Your task to perform on an android device: Install the Yelp app Image 0: 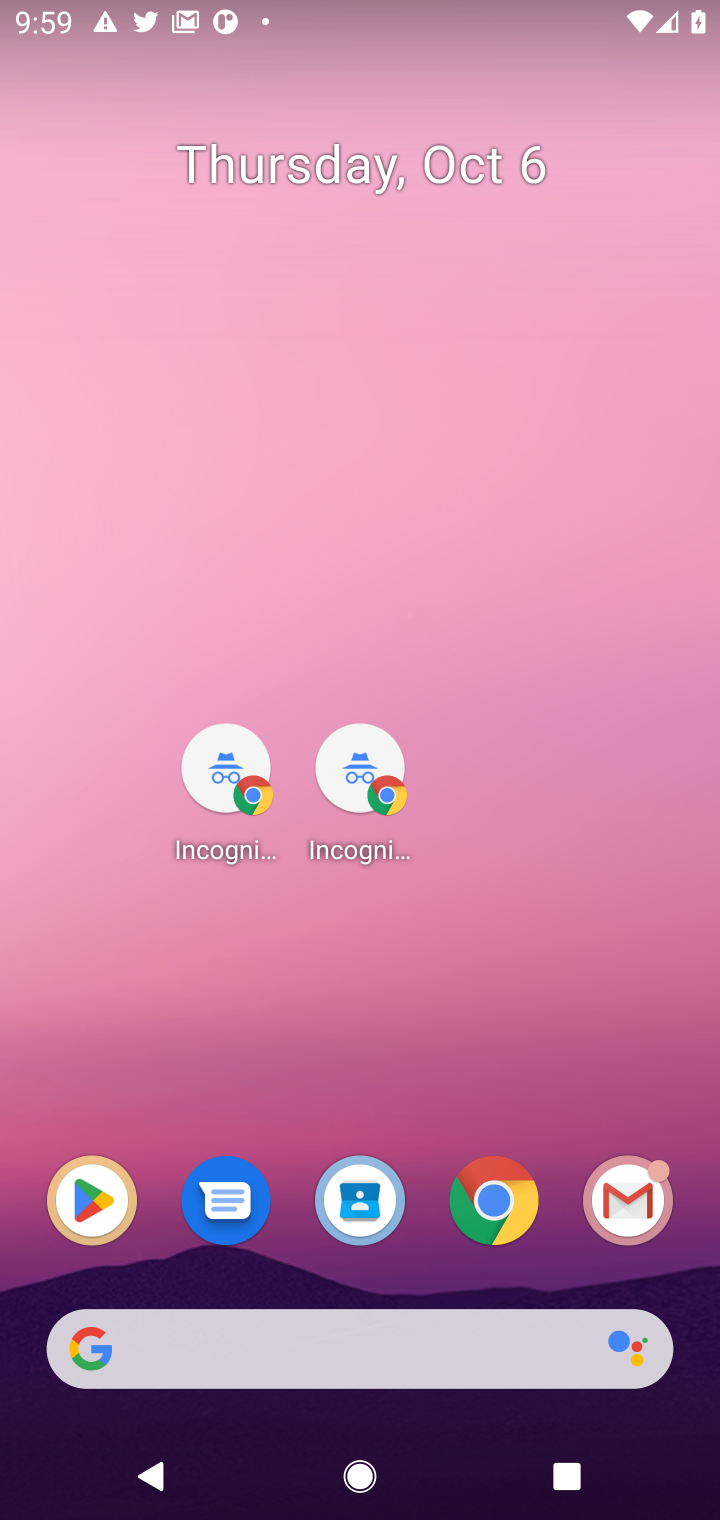
Step 0: press home button
Your task to perform on an android device: Install the Yelp app Image 1: 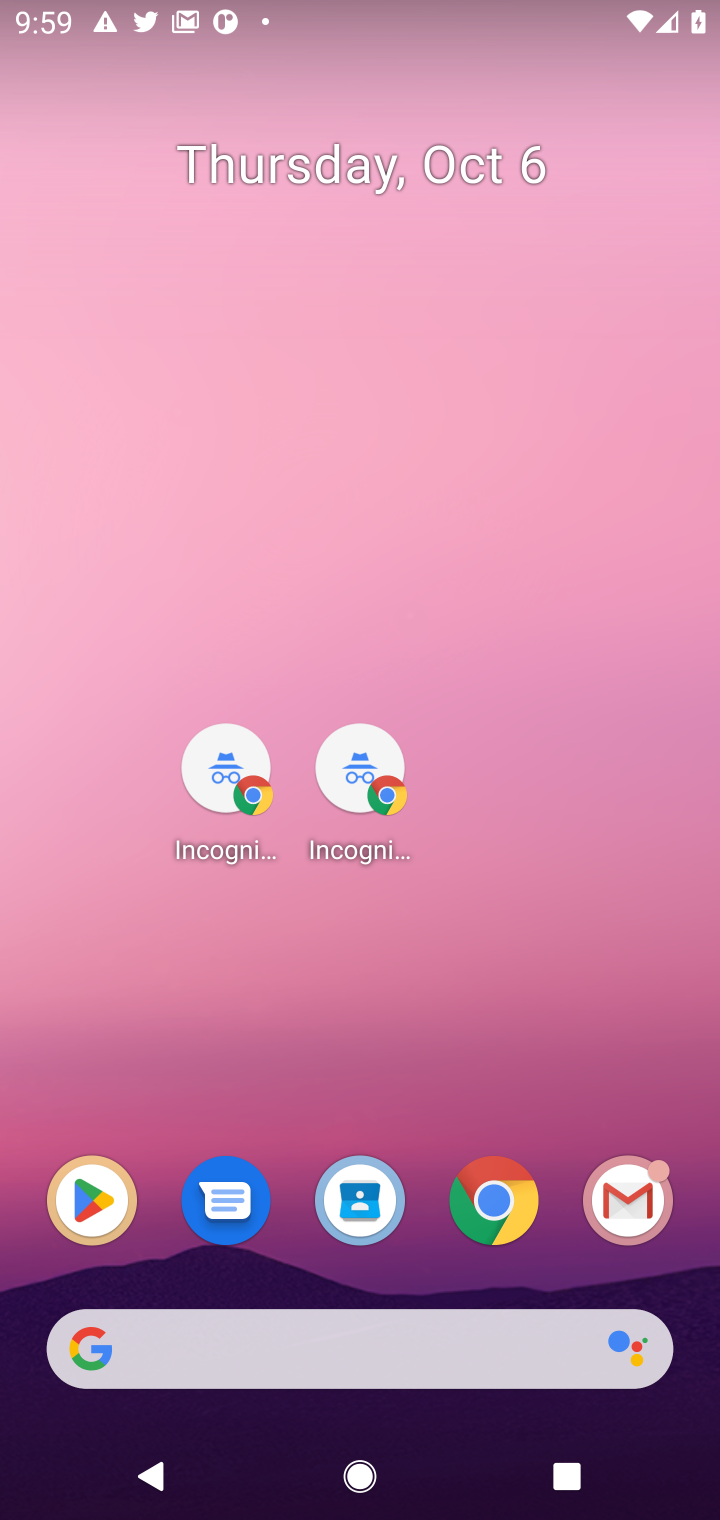
Step 1: press home button
Your task to perform on an android device: Install the Yelp app Image 2: 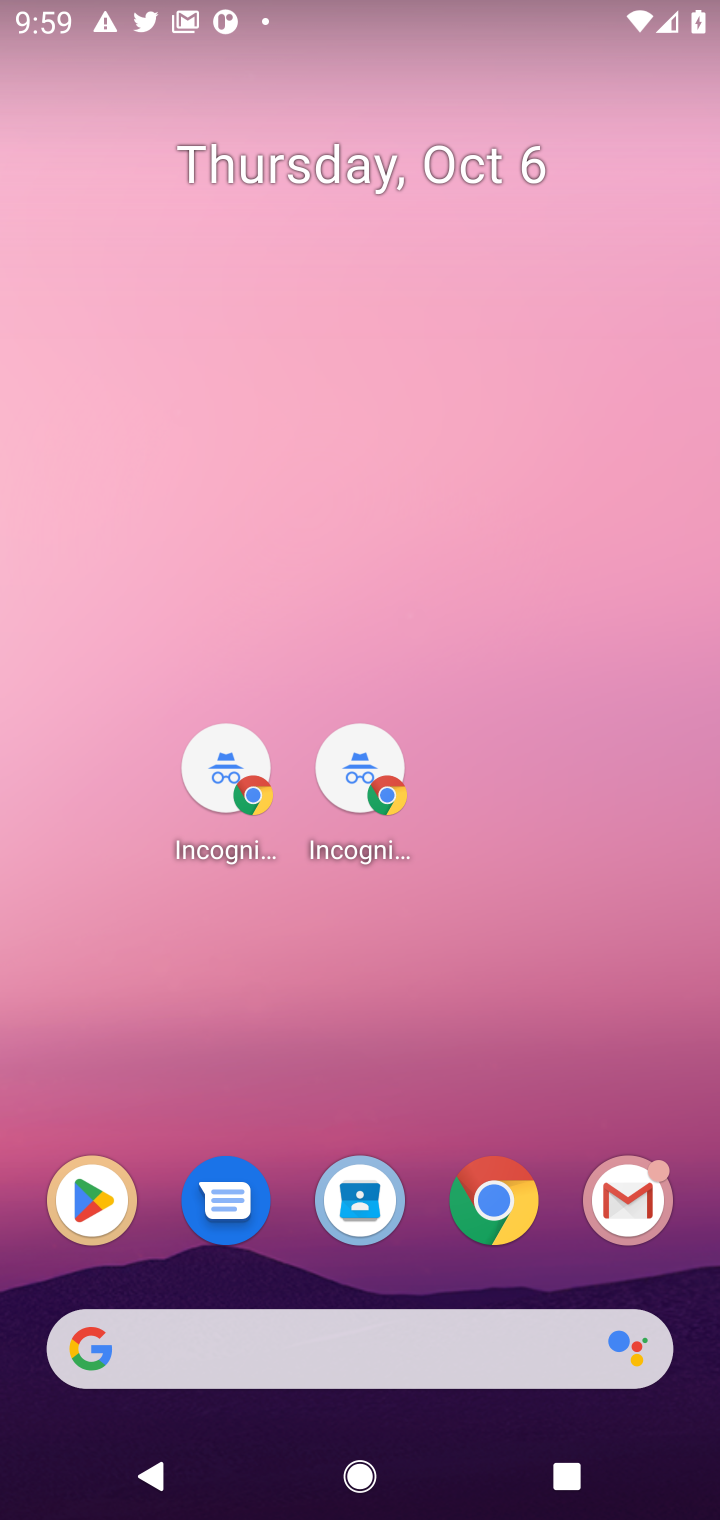
Step 2: press home button
Your task to perform on an android device: Install the Yelp app Image 3: 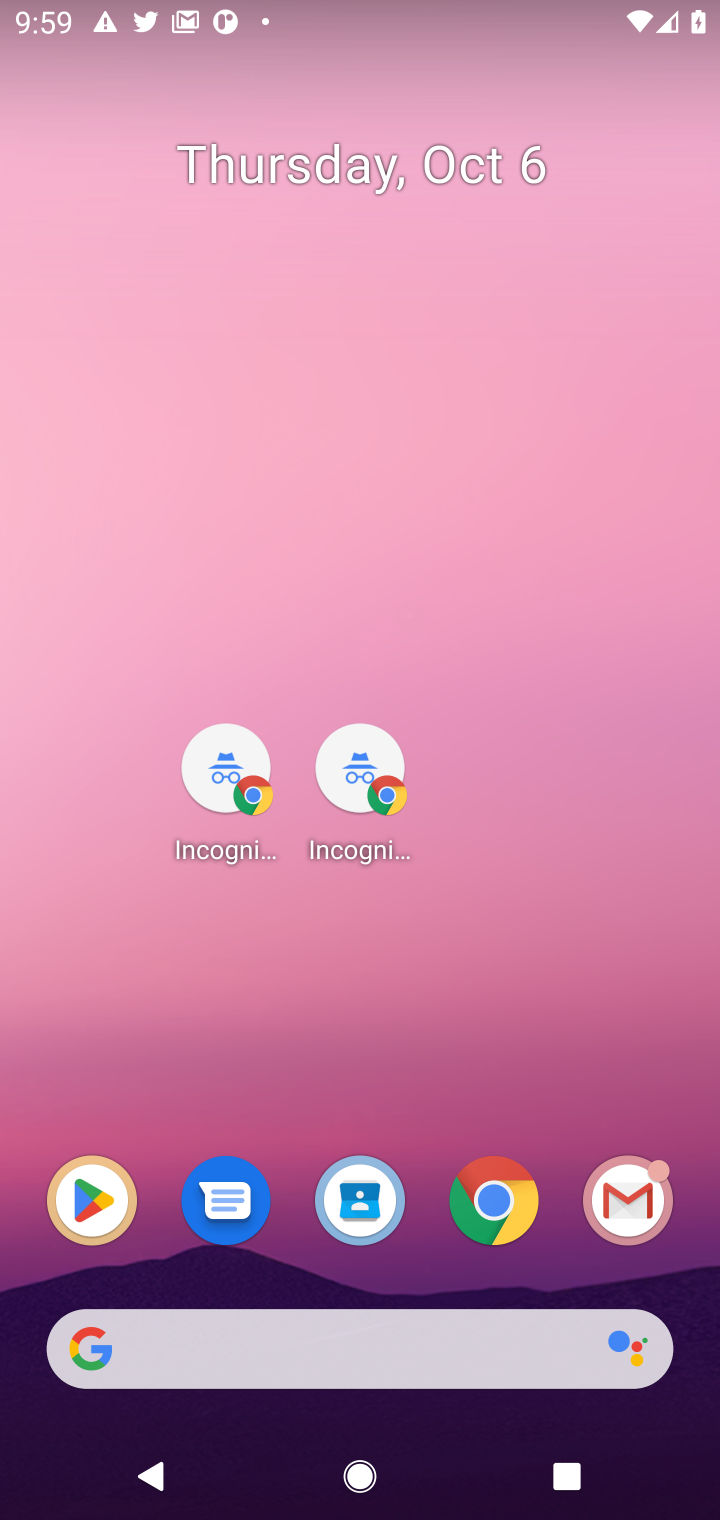
Step 3: click (506, 1182)
Your task to perform on an android device: Install the Yelp app Image 4: 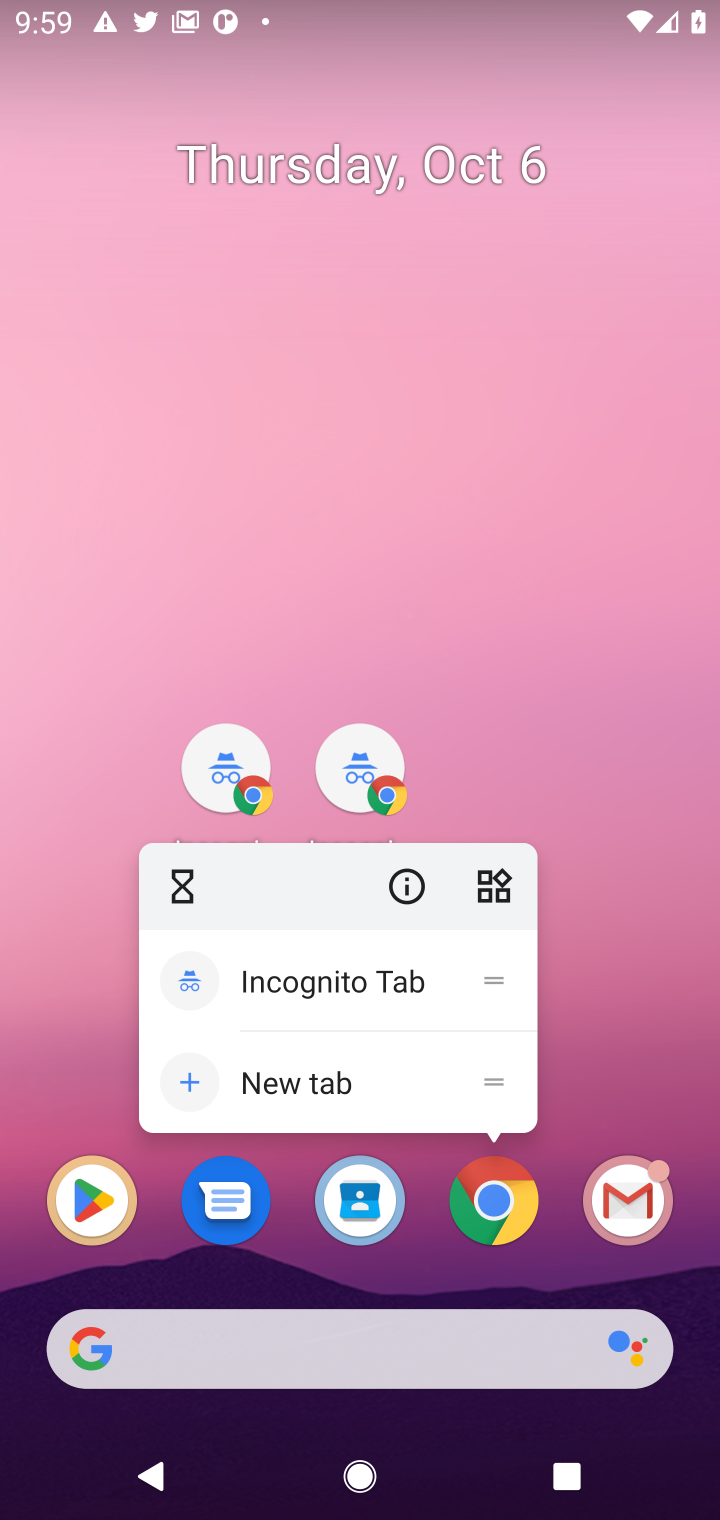
Step 4: press back button
Your task to perform on an android device: Install the Yelp app Image 5: 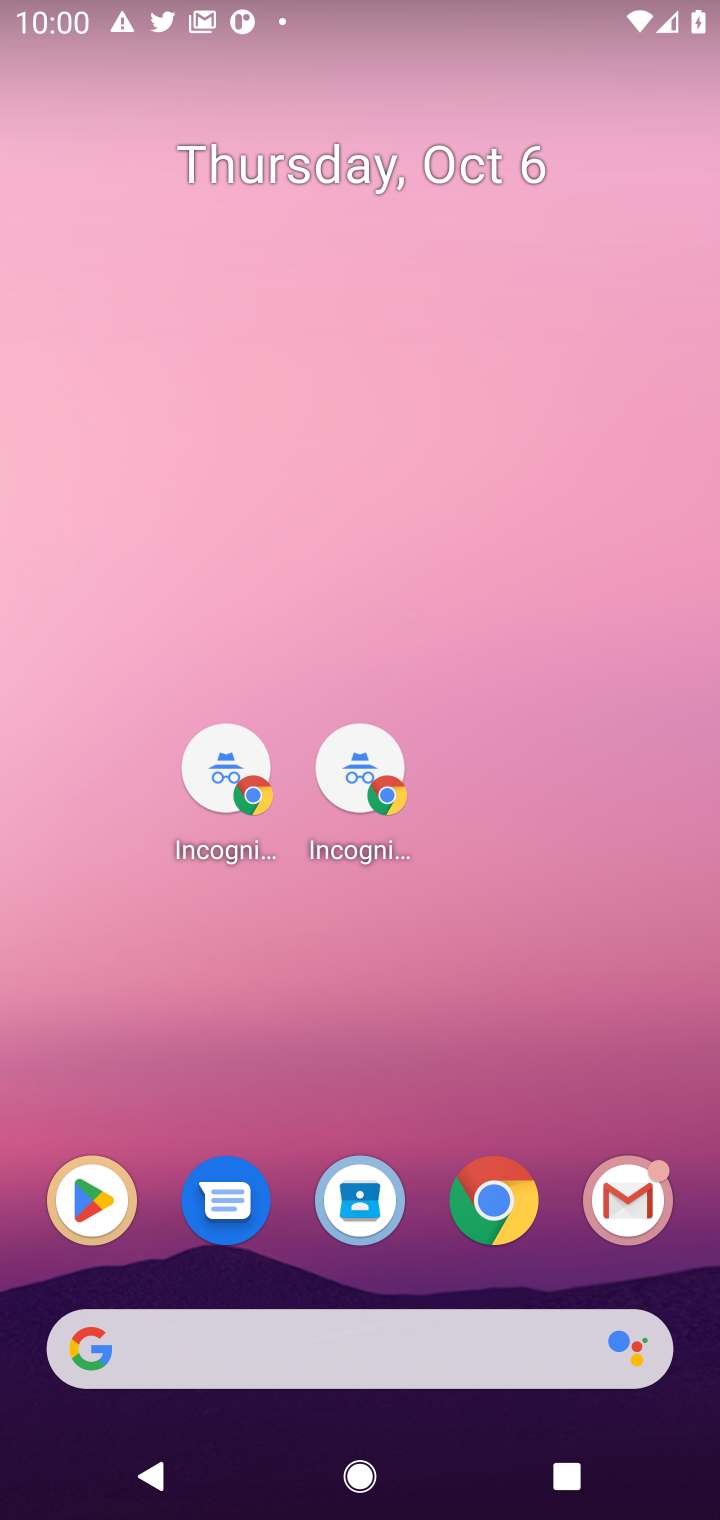
Step 5: press home button
Your task to perform on an android device: Install the Yelp app Image 6: 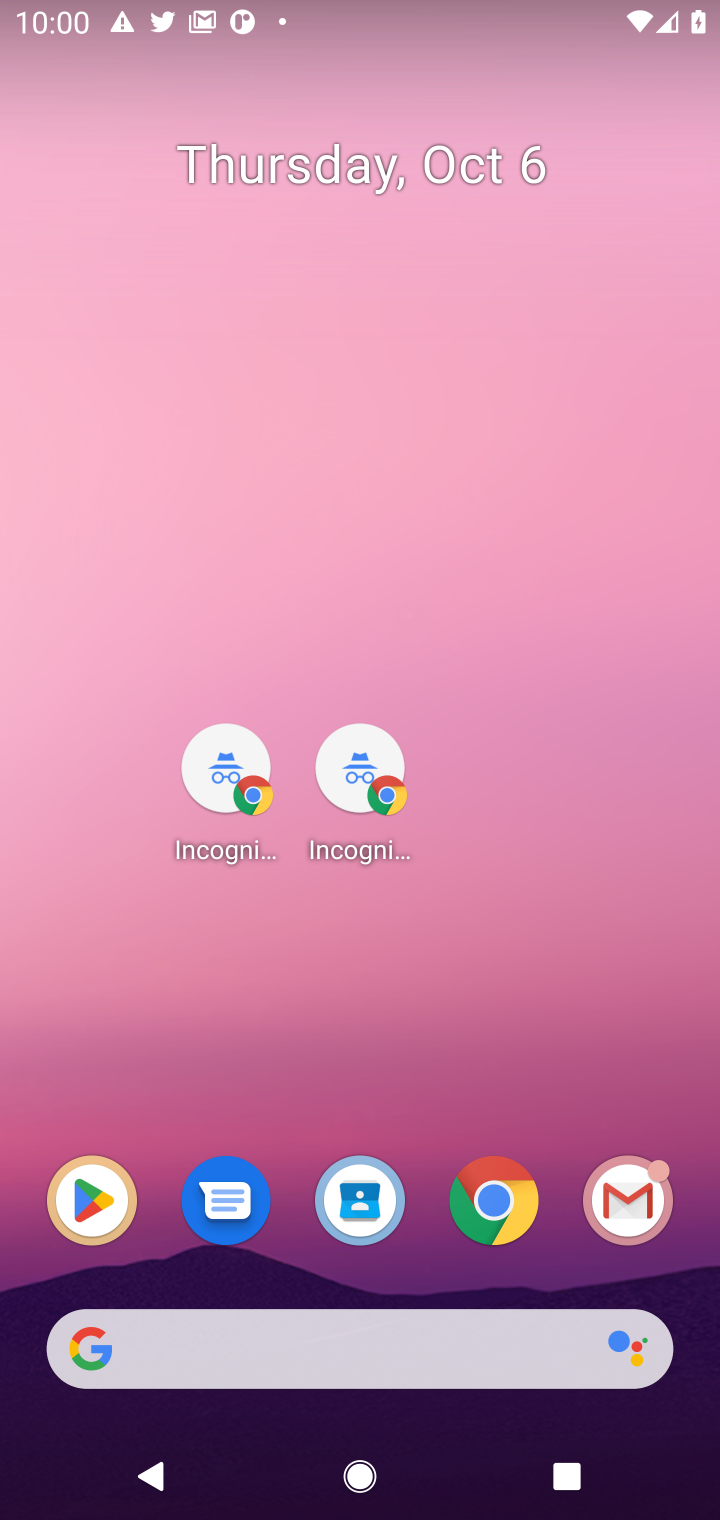
Step 6: click (475, 1202)
Your task to perform on an android device: Install the Yelp app Image 7: 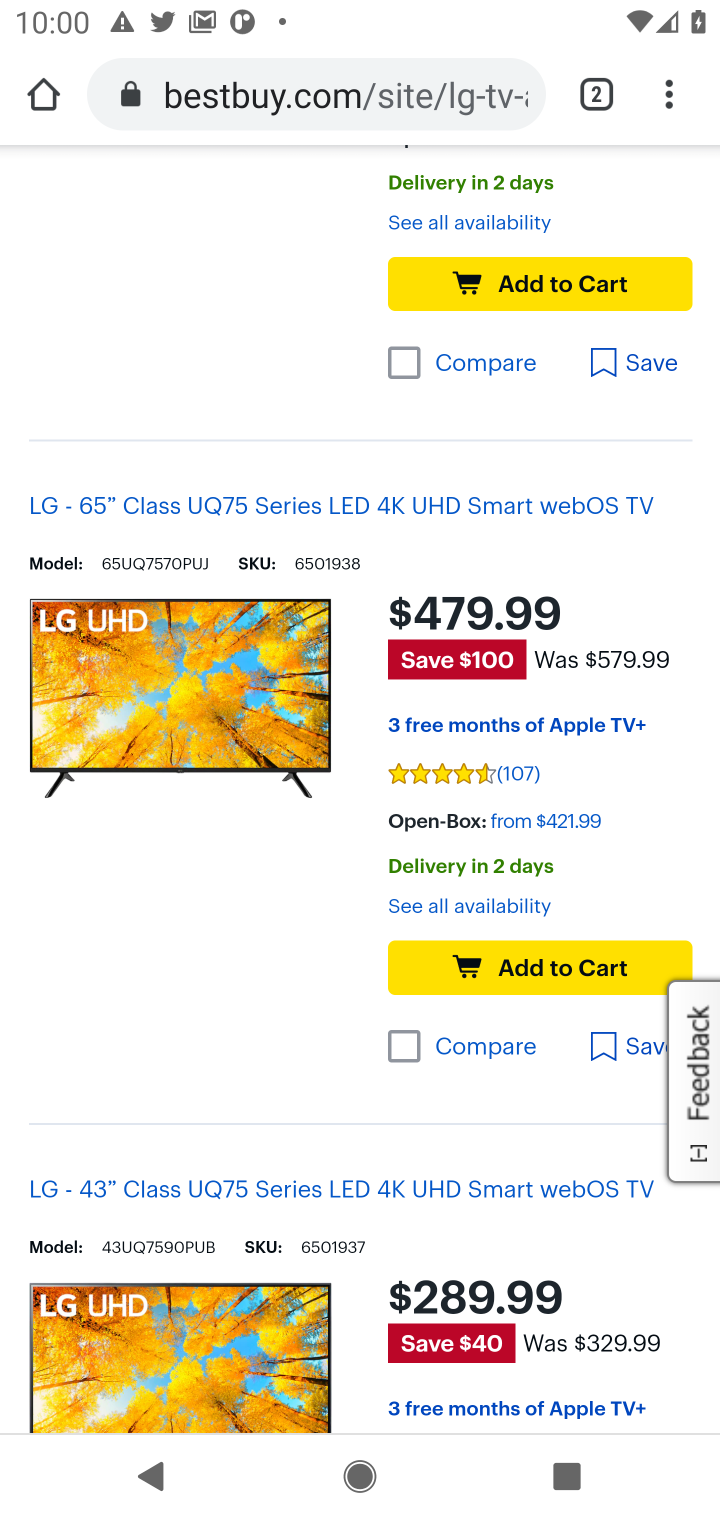
Step 7: click (339, 82)
Your task to perform on an android device: Install the Yelp app Image 8: 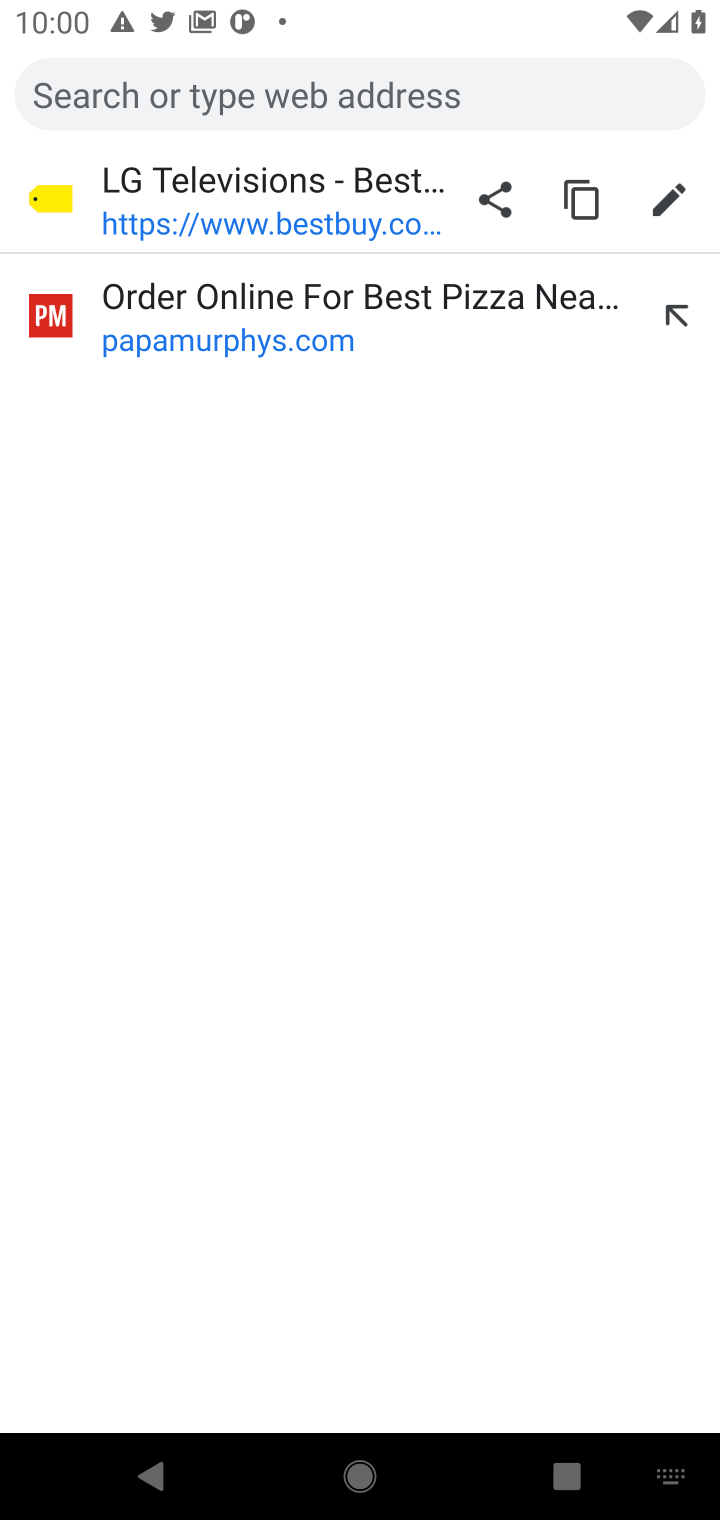
Step 8: type "intall the yelp app"
Your task to perform on an android device: Install the Yelp app Image 9: 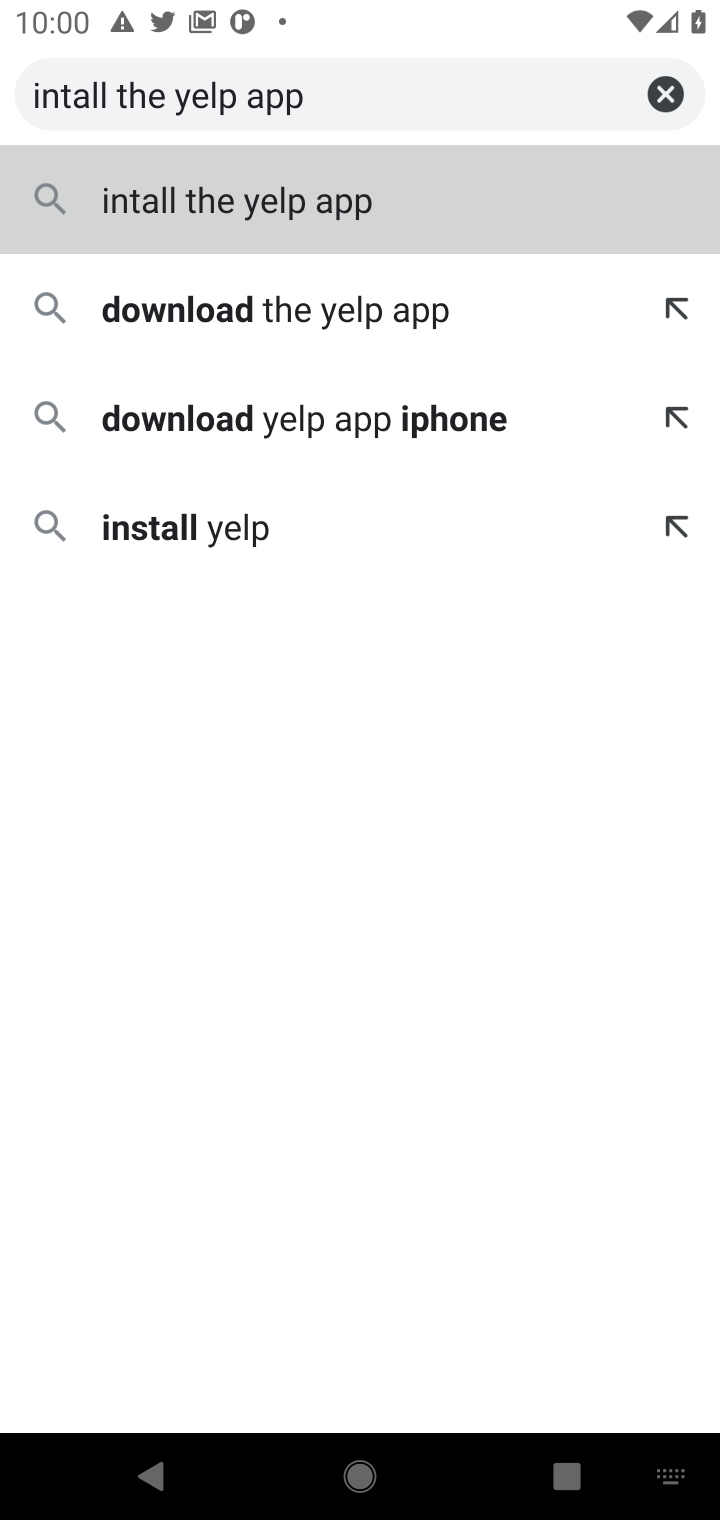
Step 9: click (221, 316)
Your task to perform on an android device: Install the Yelp app Image 10: 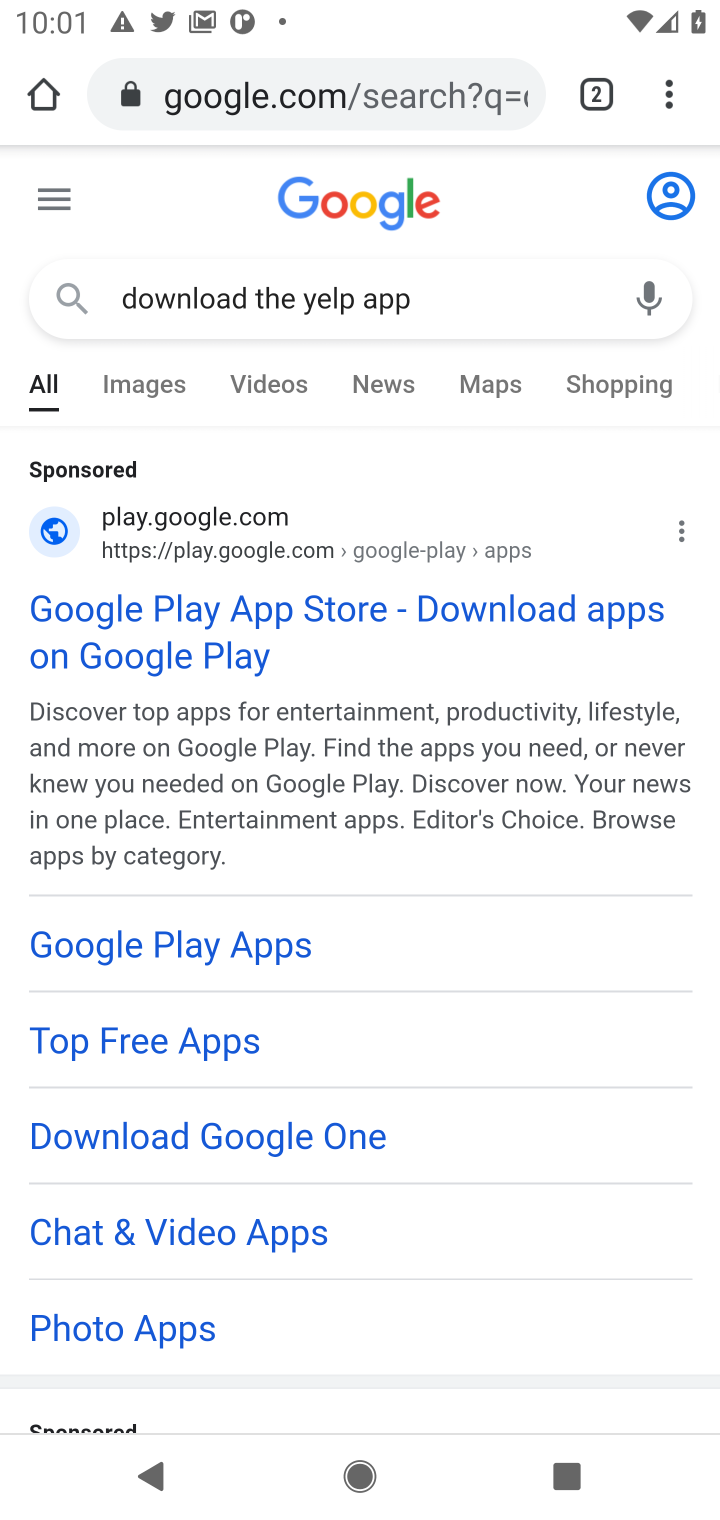
Step 10: drag from (408, 1097) to (484, 495)
Your task to perform on an android device: Install the Yelp app Image 11: 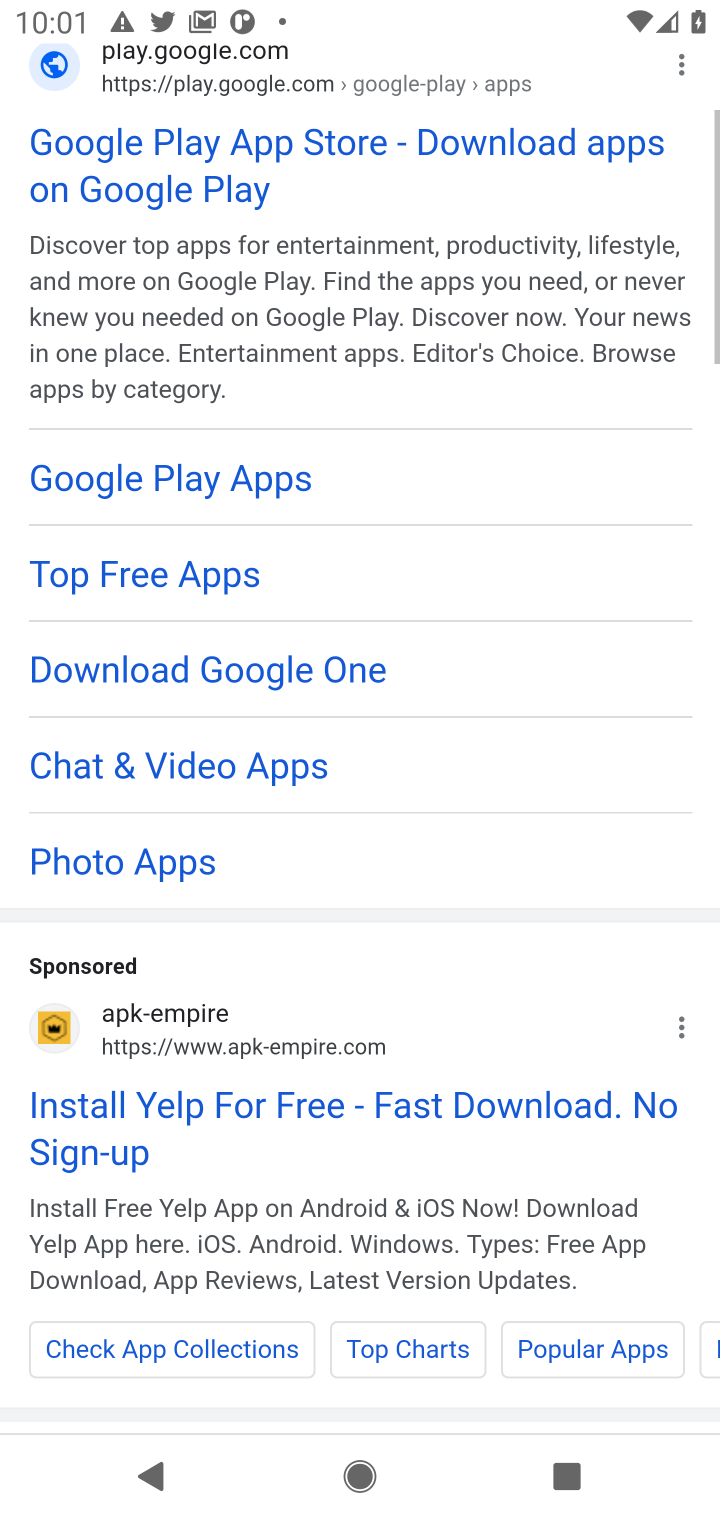
Step 11: drag from (464, 1071) to (499, 472)
Your task to perform on an android device: Install the Yelp app Image 12: 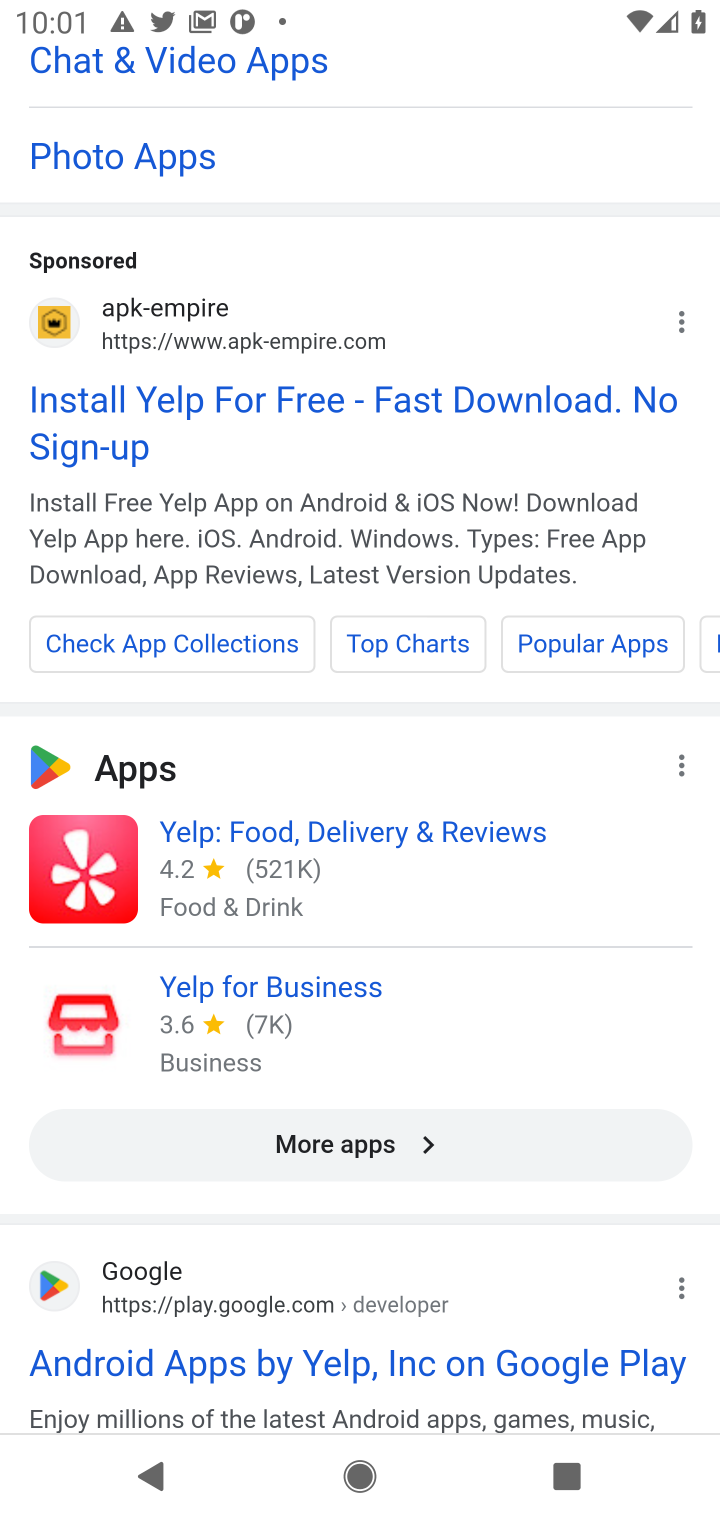
Step 12: click (181, 1373)
Your task to perform on an android device: Install the Yelp app Image 13: 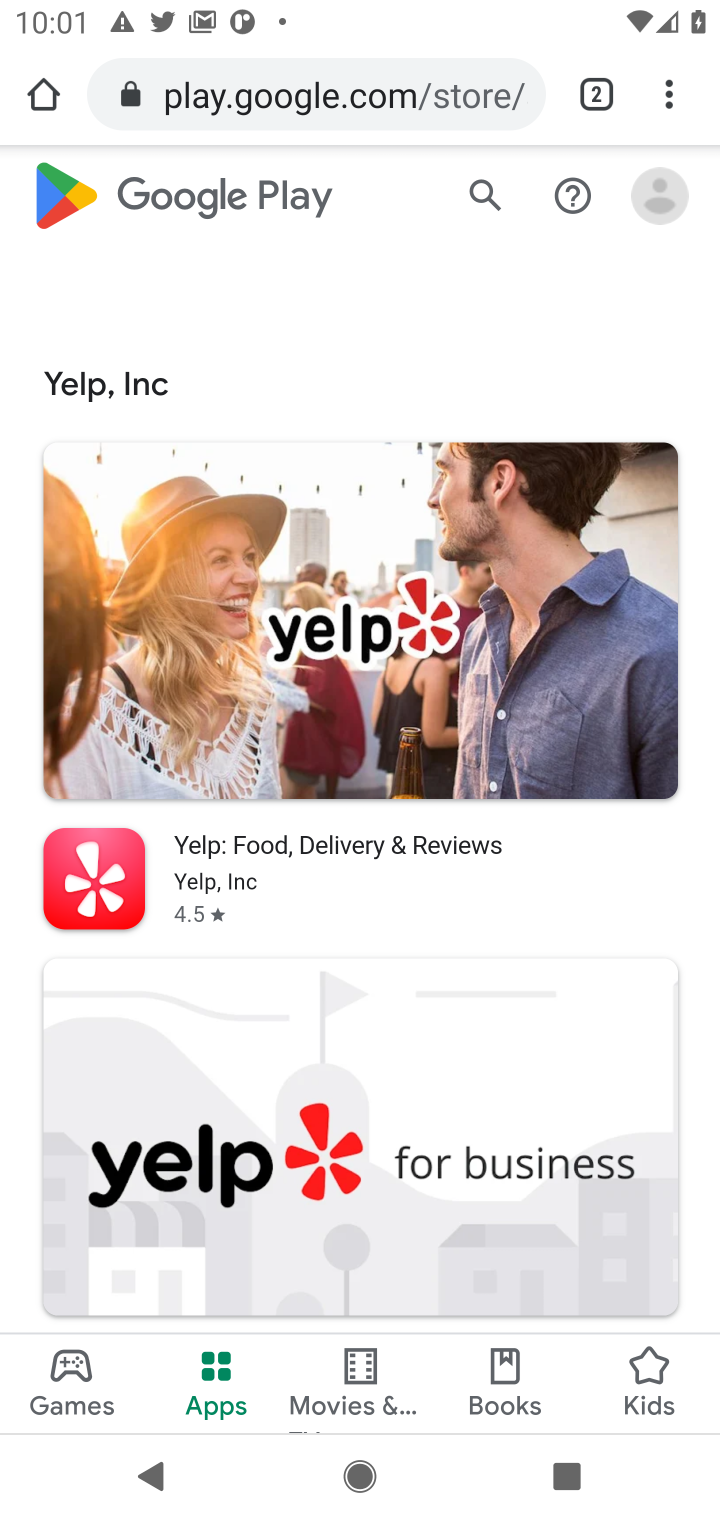
Step 13: drag from (514, 872) to (552, 499)
Your task to perform on an android device: Install the Yelp app Image 14: 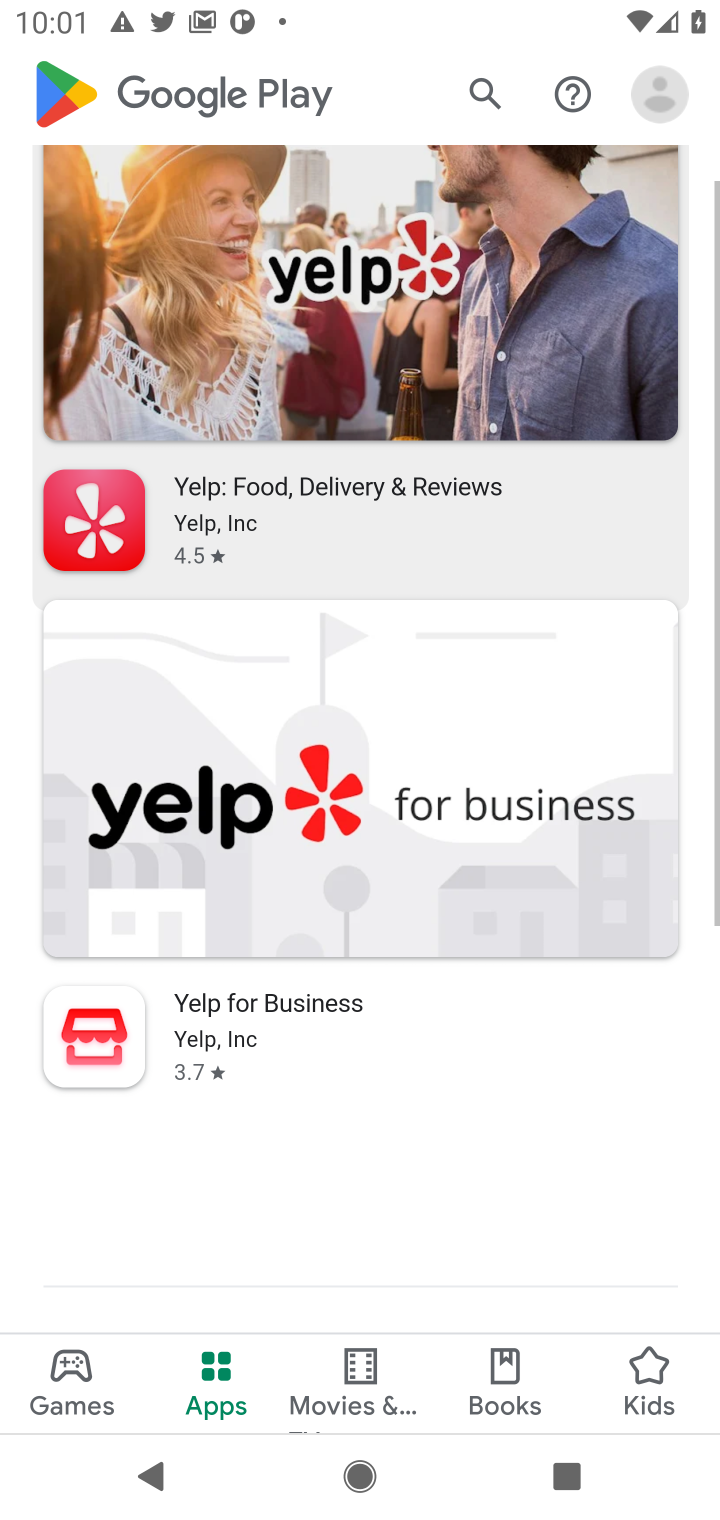
Step 14: drag from (566, 1041) to (571, 712)
Your task to perform on an android device: Install the Yelp app Image 15: 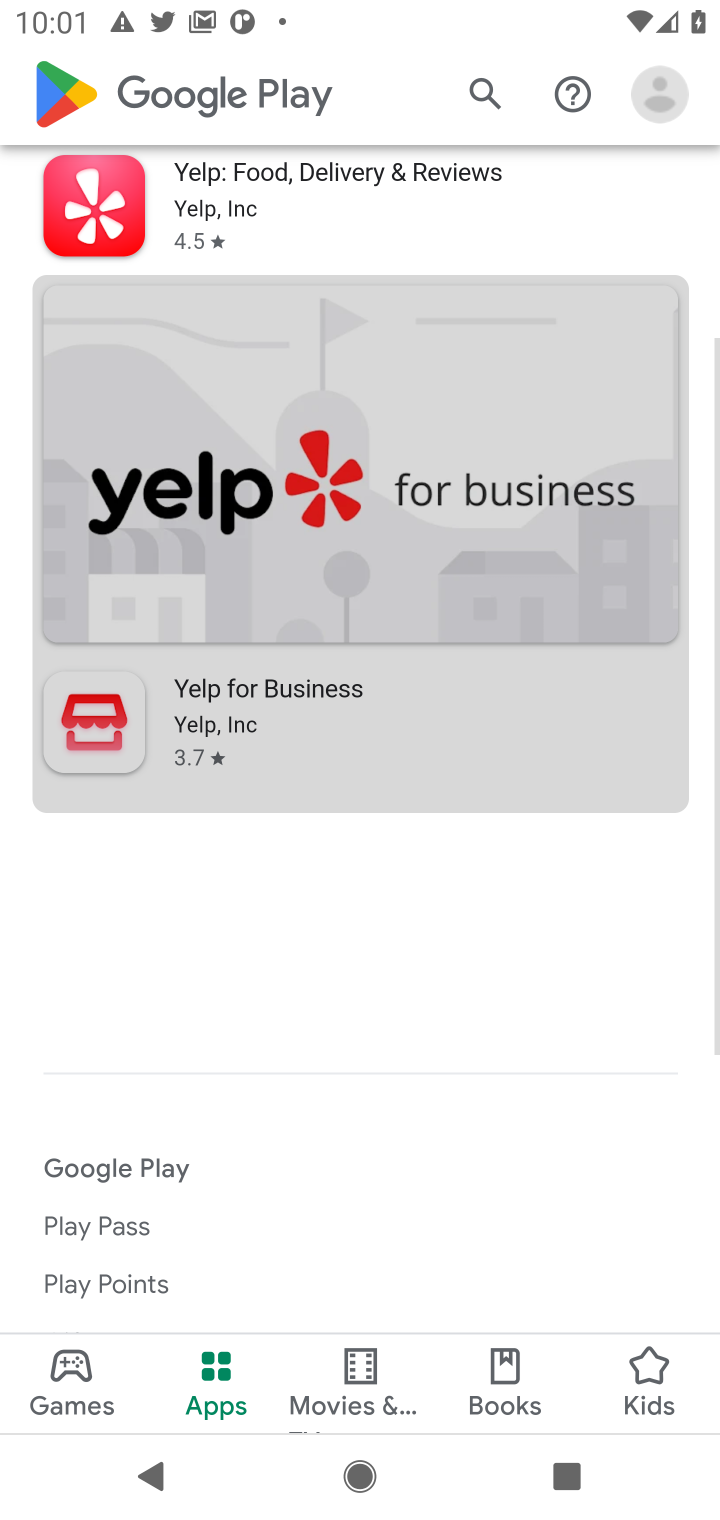
Step 15: drag from (458, 1085) to (418, 541)
Your task to perform on an android device: Install the Yelp app Image 16: 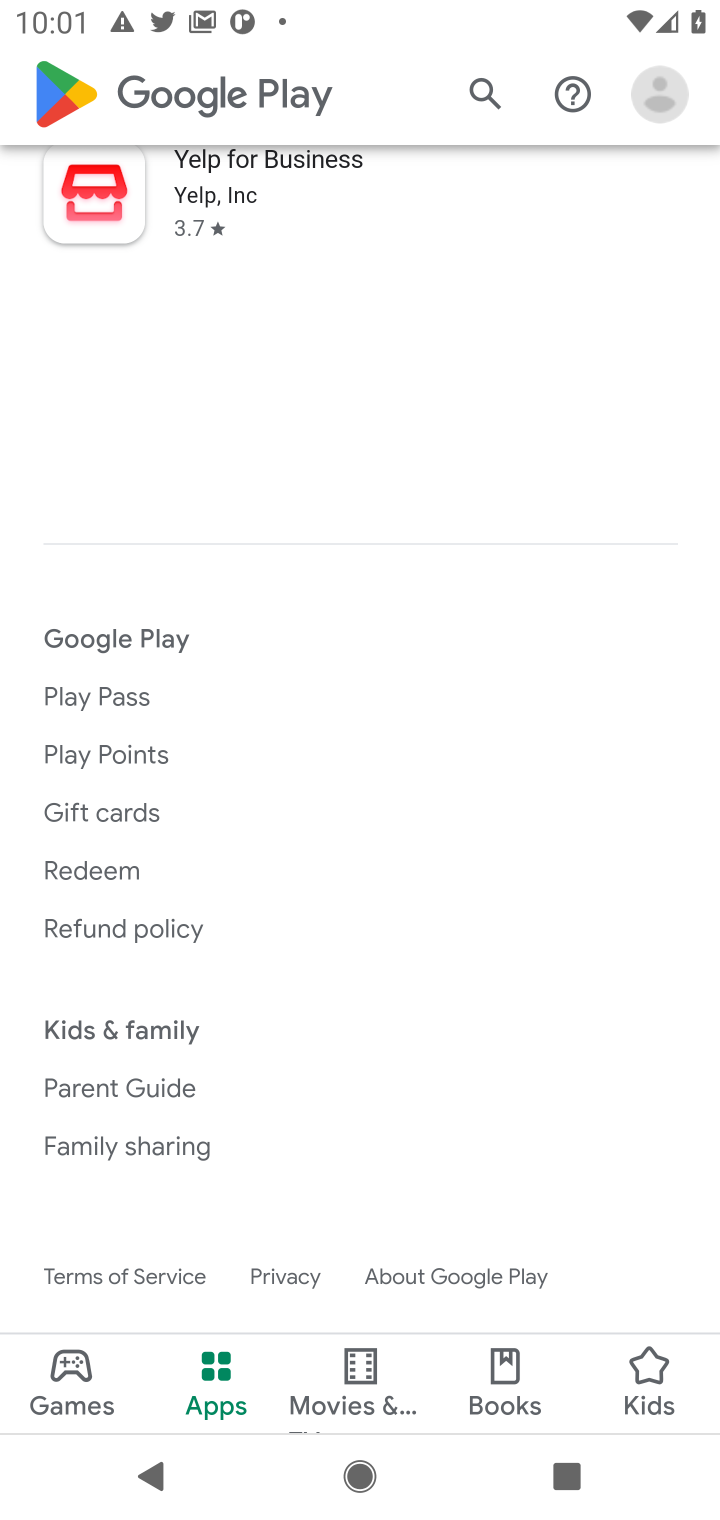
Step 16: drag from (373, 420) to (441, 1228)
Your task to perform on an android device: Install the Yelp app Image 17: 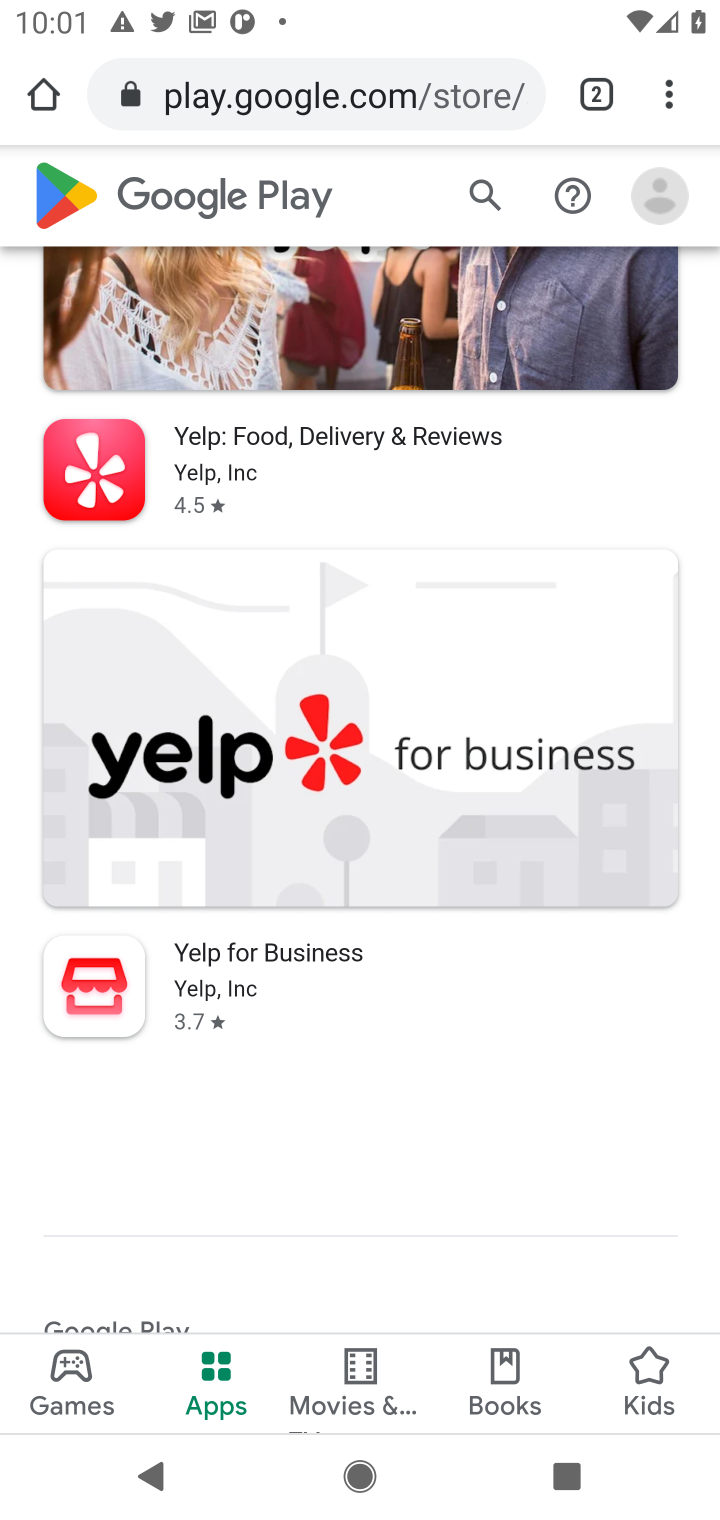
Step 17: drag from (446, 793) to (378, 1190)
Your task to perform on an android device: Install the Yelp app Image 18: 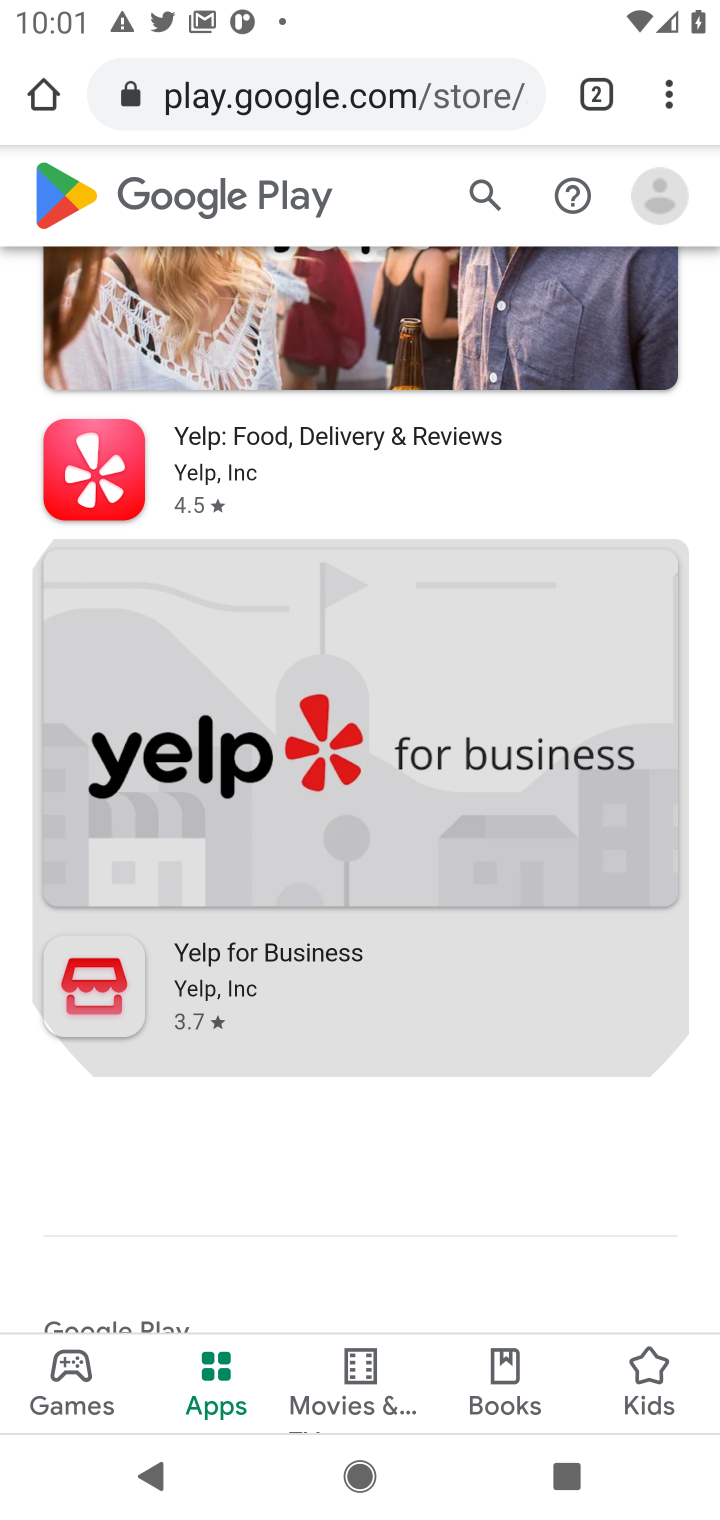
Step 18: drag from (281, 662) to (261, 1330)
Your task to perform on an android device: Install the Yelp app Image 19: 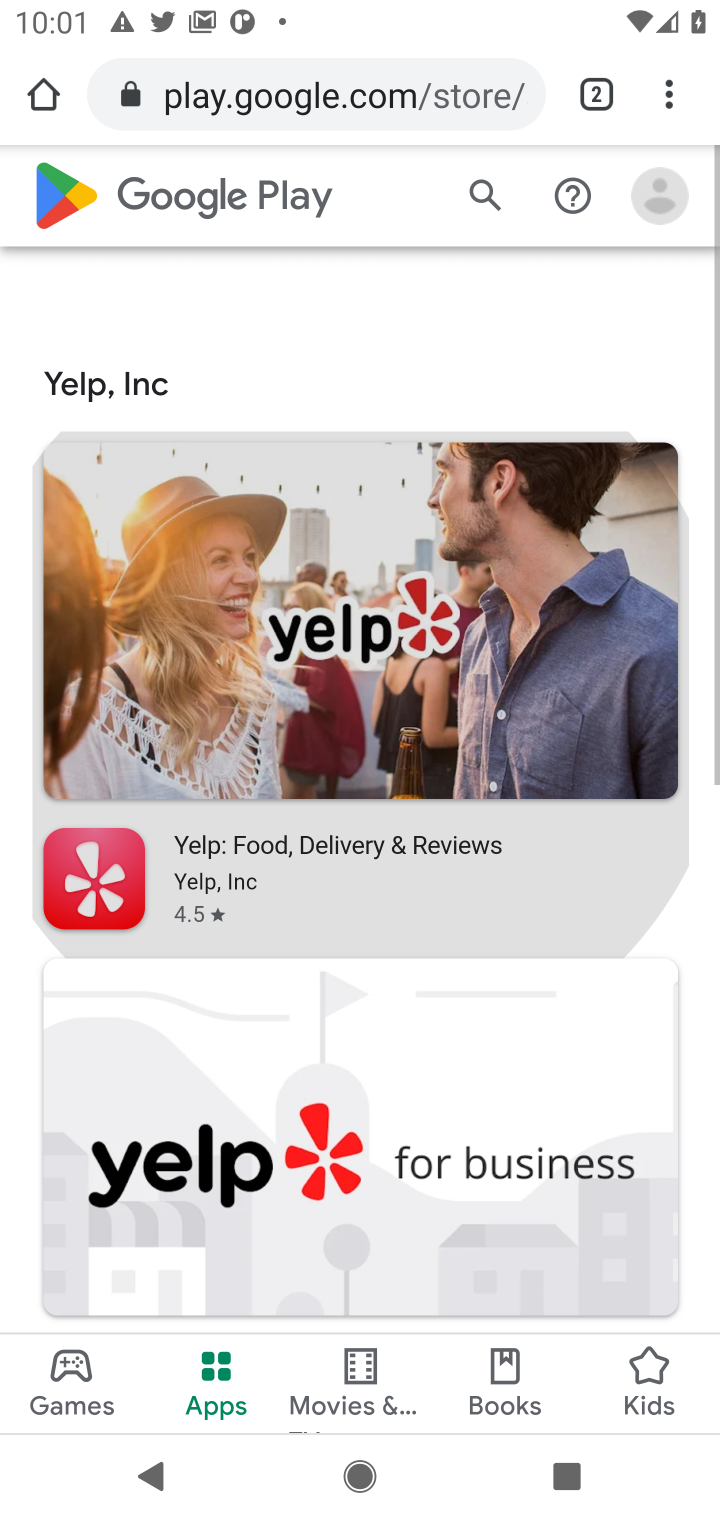
Step 19: drag from (244, 957) to (208, 1194)
Your task to perform on an android device: Install the Yelp app Image 20: 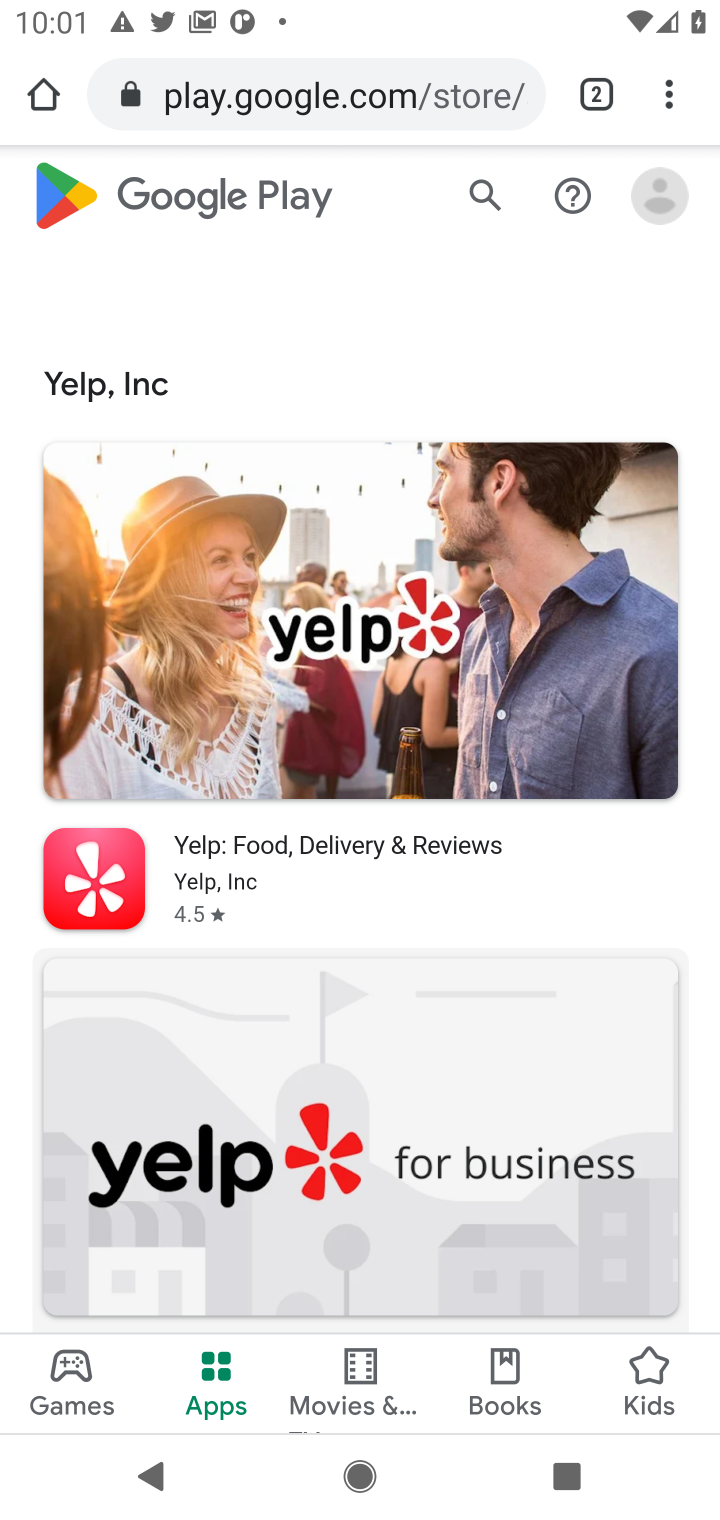
Step 20: click (313, 82)
Your task to perform on an android device: Install the Yelp app Image 21: 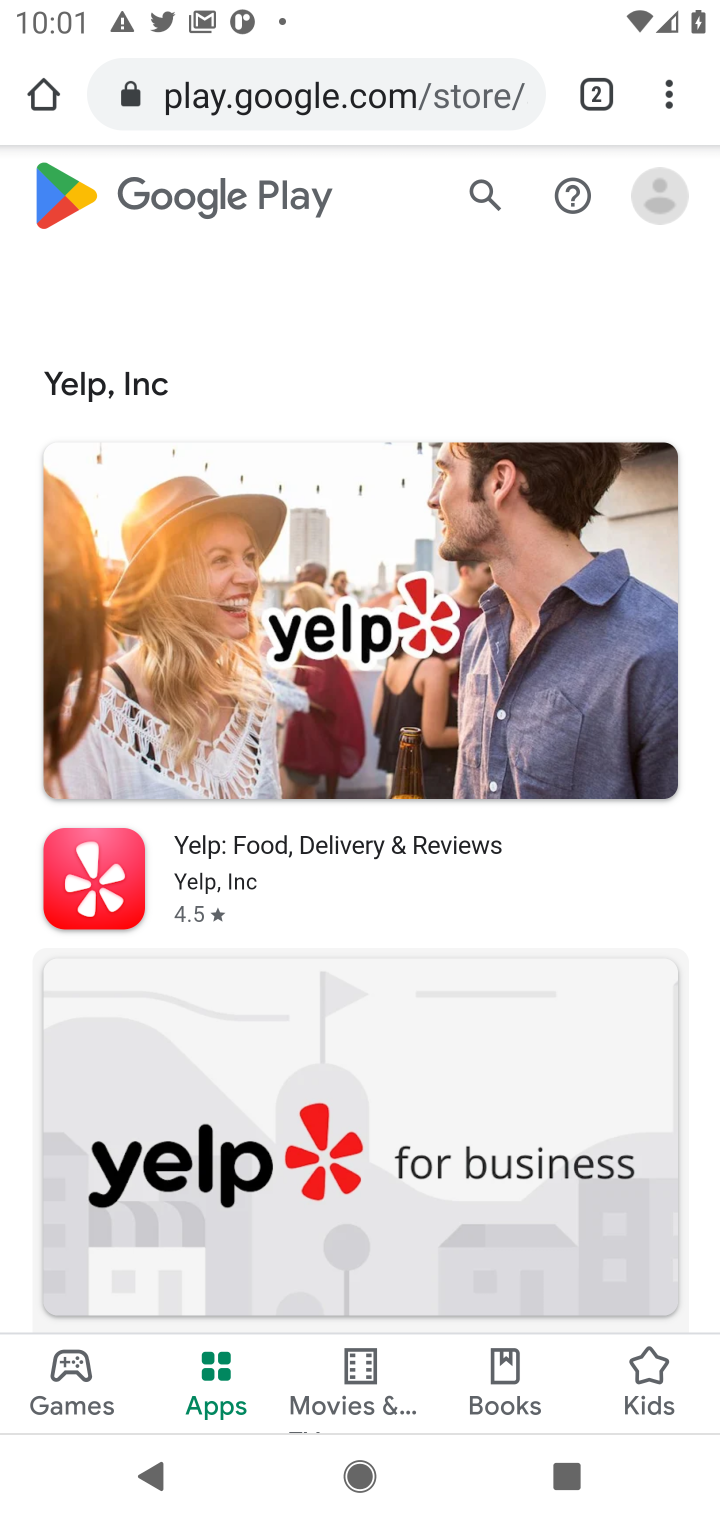
Step 21: click (479, 190)
Your task to perform on an android device: Install the Yelp app Image 22: 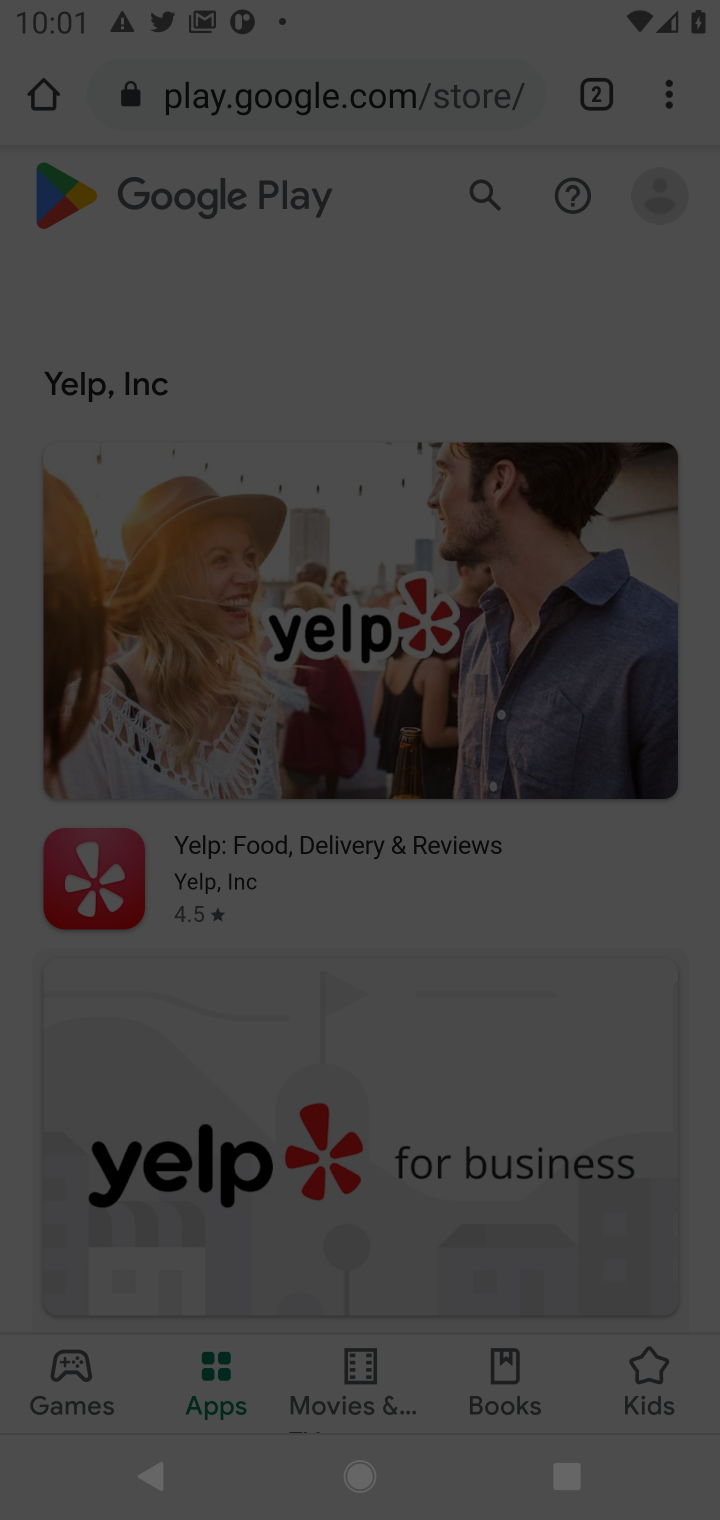
Step 22: click (367, 91)
Your task to perform on an android device: Install the Yelp app Image 23: 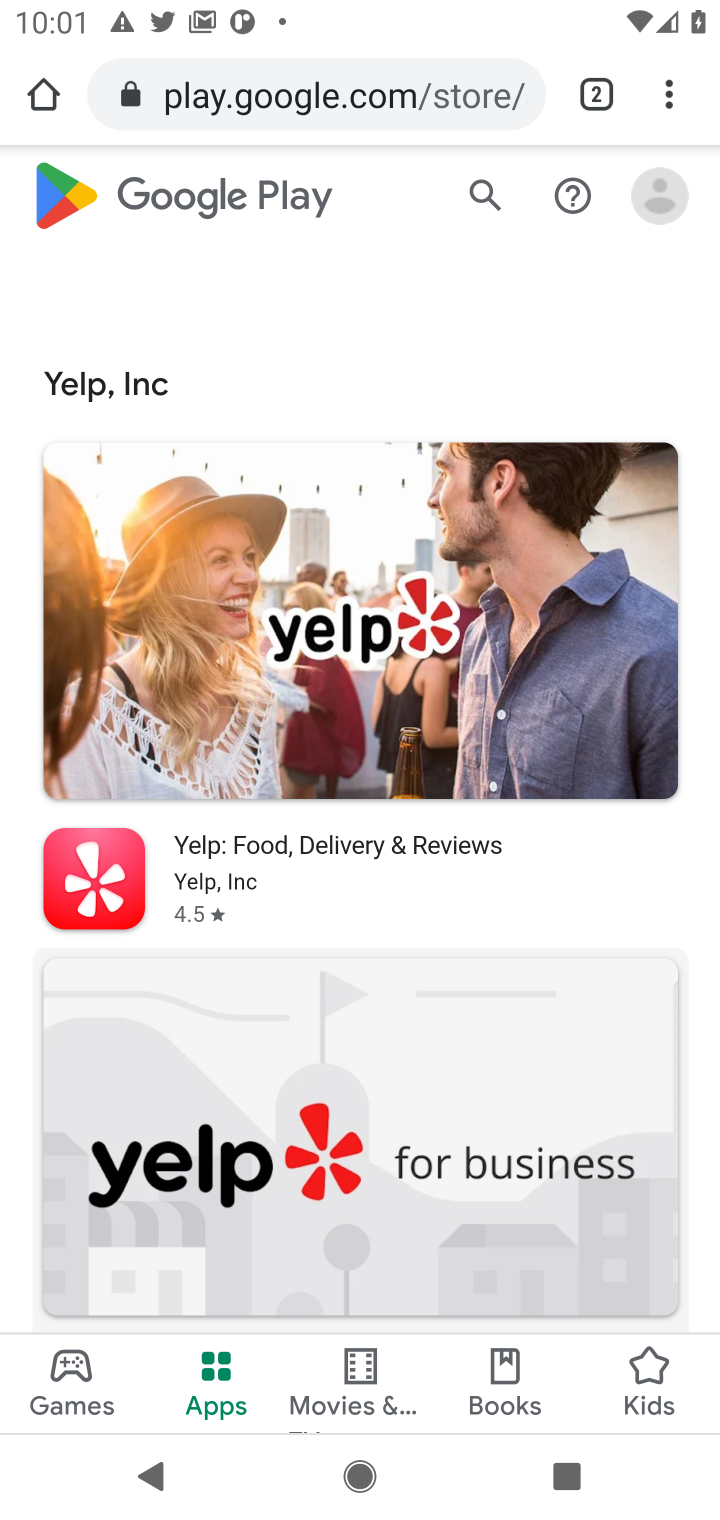
Step 23: click (485, 197)
Your task to perform on an android device: Install the Yelp app Image 24: 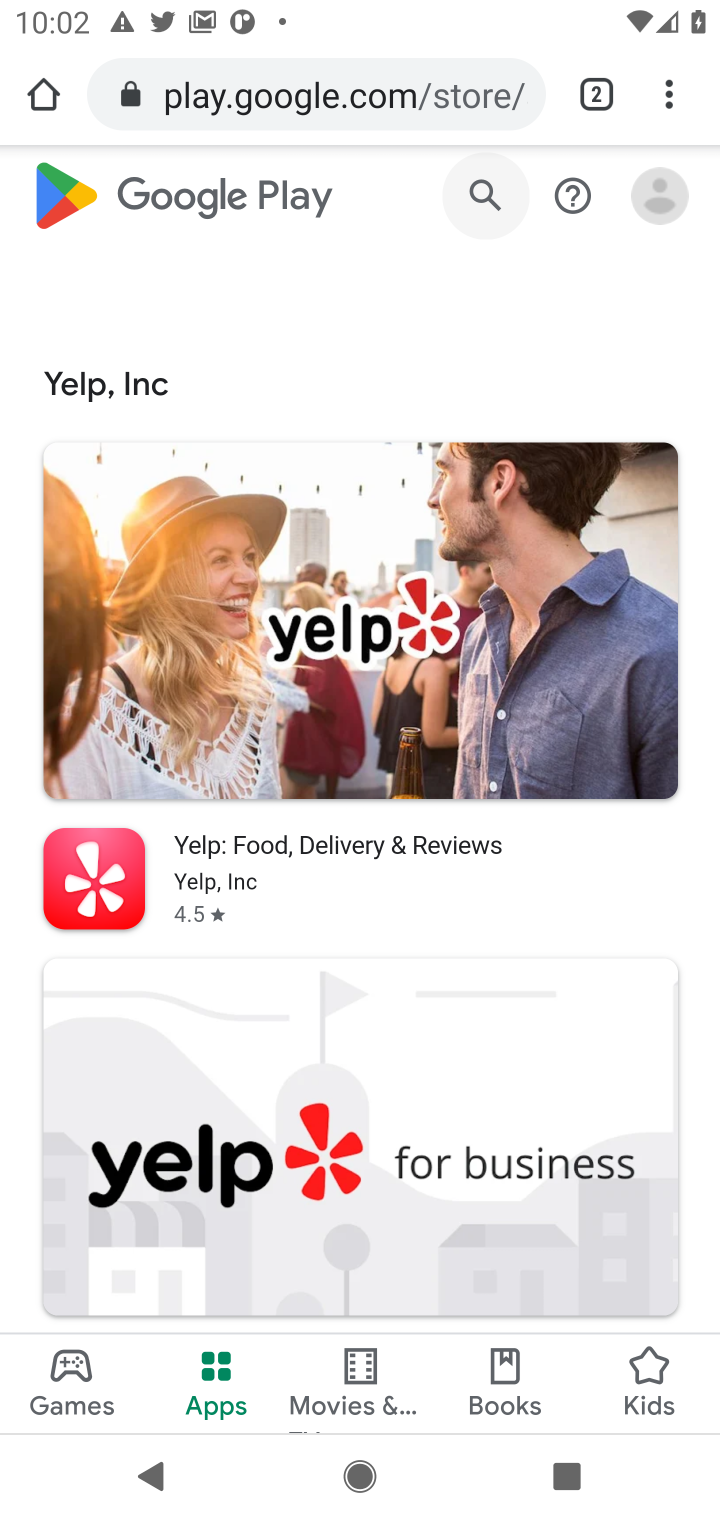
Step 24: click (488, 191)
Your task to perform on an android device: Install the Yelp app Image 25: 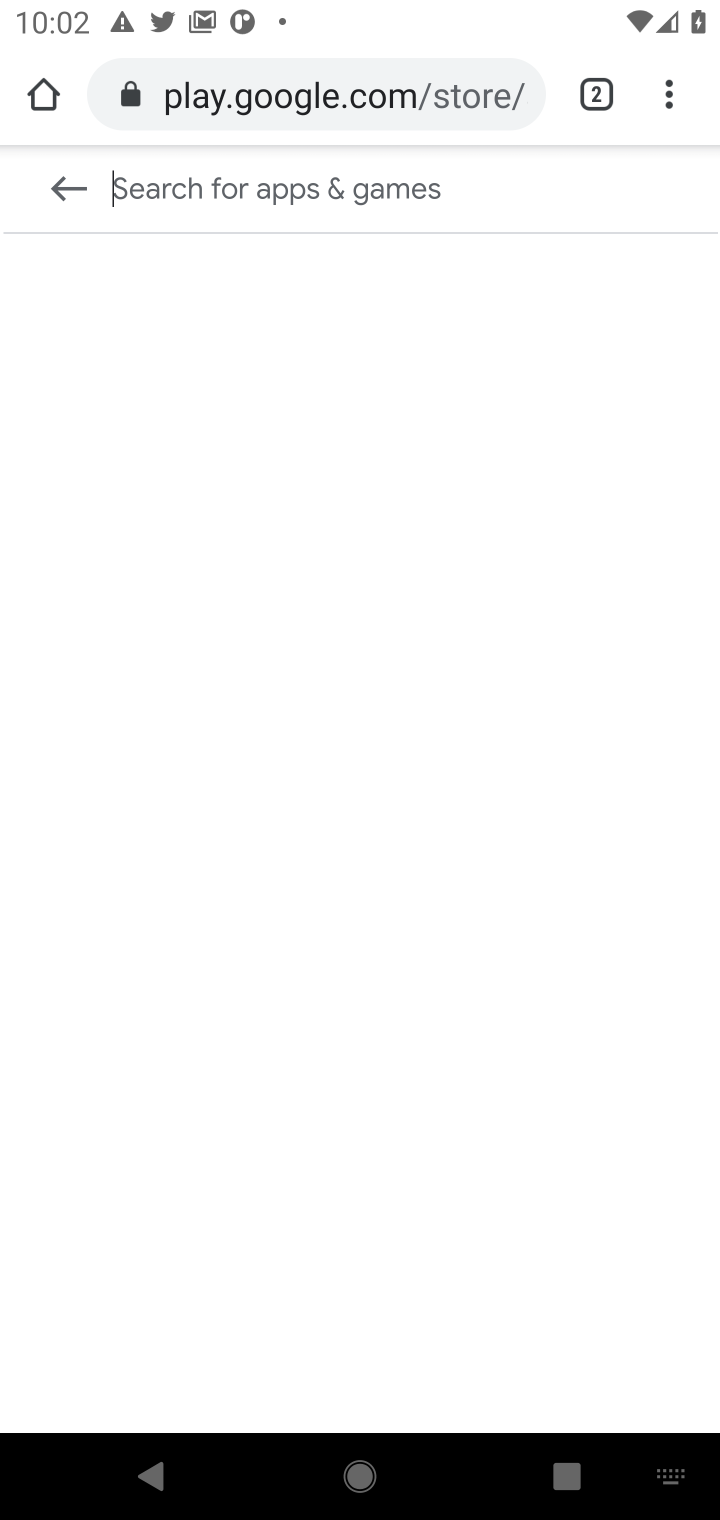
Step 25: type "yelp app"
Your task to perform on an android device: Install the Yelp app Image 26: 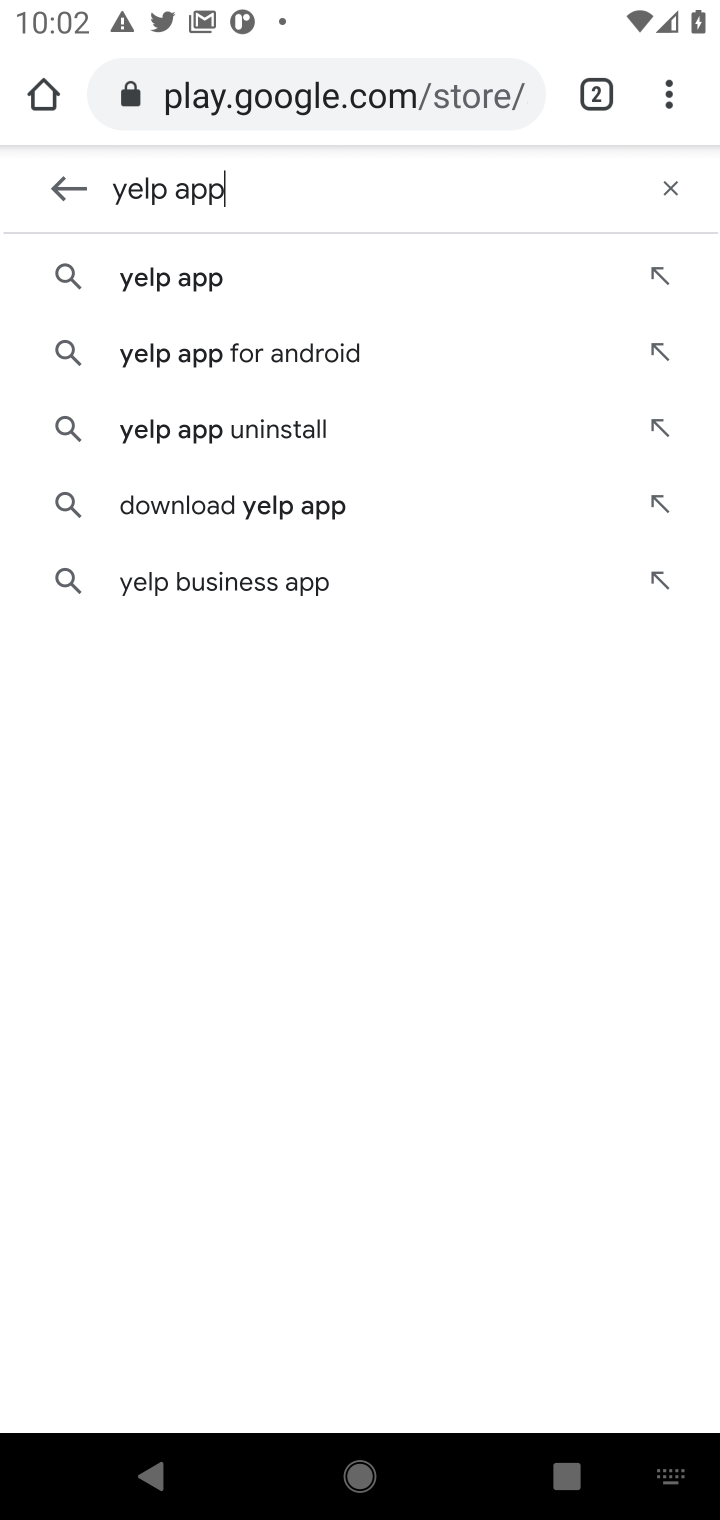
Step 26: click (192, 422)
Your task to perform on an android device: Install the Yelp app Image 27: 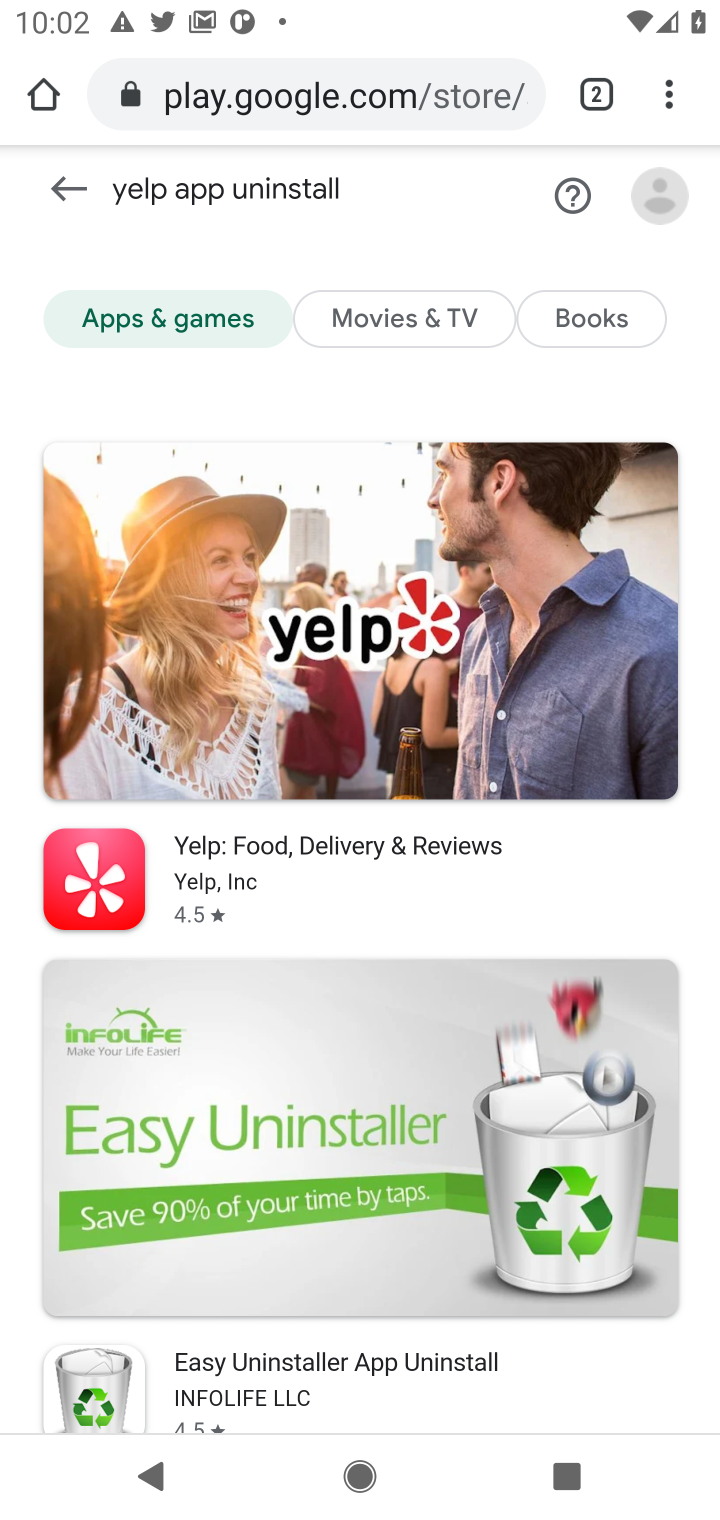
Step 27: task complete